Your task to perform on an android device: What's the weather going to be tomorrow? Image 0: 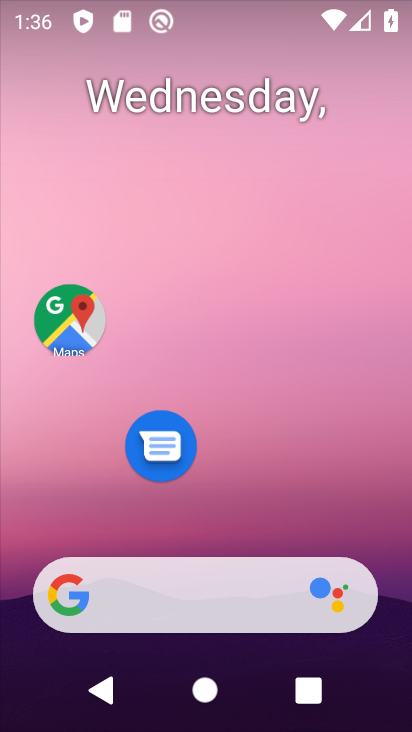
Step 0: drag from (355, 507) to (165, 16)
Your task to perform on an android device: What's the weather going to be tomorrow? Image 1: 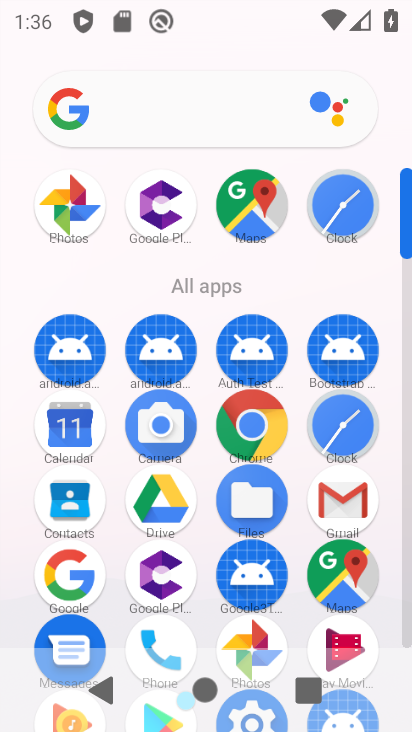
Step 1: click (141, 114)
Your task to perform on an android device: What's the weather going to be tomorrow? Image 2: 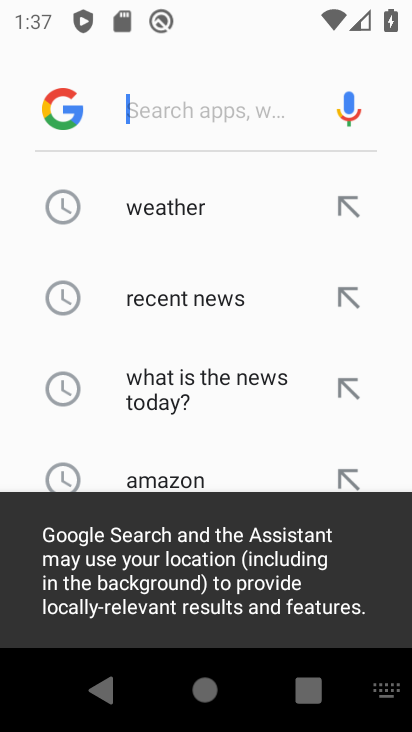
Step 2: click (188, 208)
Your task to perform on an android device: What's the weather going to be tomorrow? Image 3: 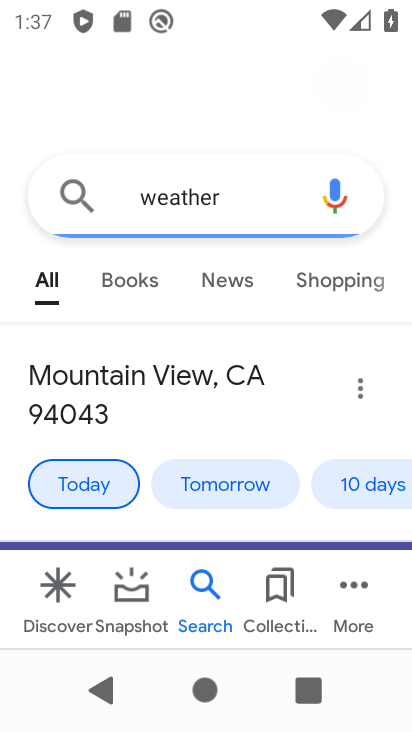
Step 3: task complete